Your task to perform on an android device: Open battery settings Image 0: 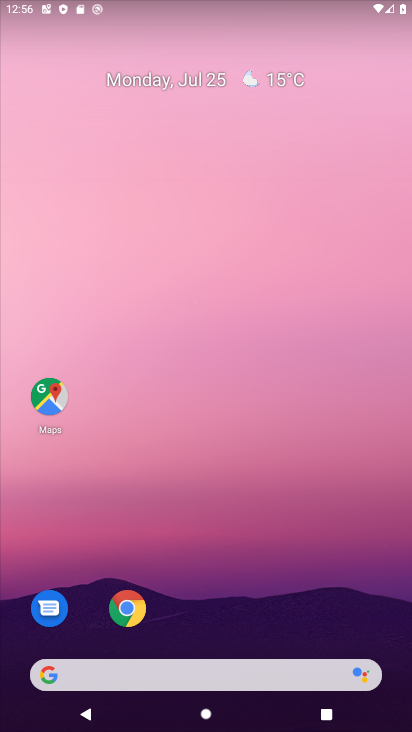
Step 0: drag from (284, 513) to (369, 80)
Your task to perform on an android device: Open battery settings Image 1: 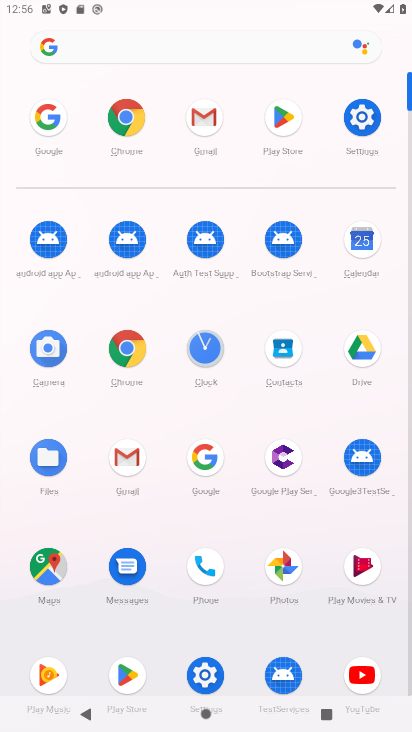
Step 1: click (197, 681)
Your task to perform on an android device: Open battery settings Image 2: 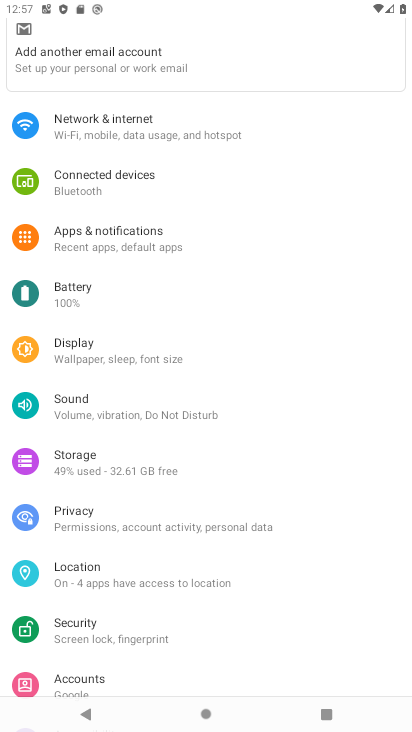
Step 2: click (167, 301)
Your task to perform on an android device: Open battery settings Image 3: 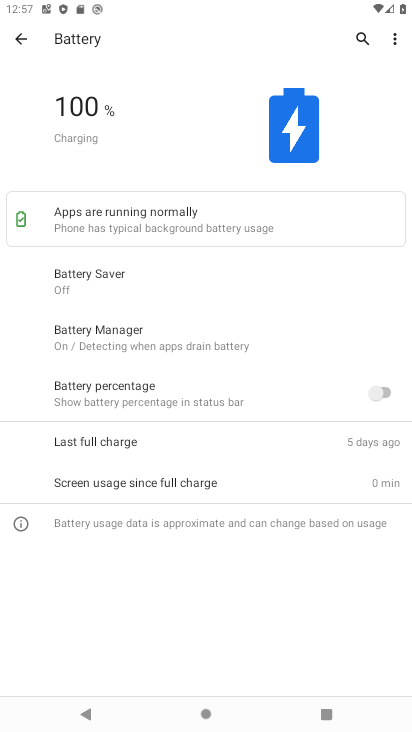
Step 3: task complete